Your task to perform on an android device: Go to wifi settings Image 0: 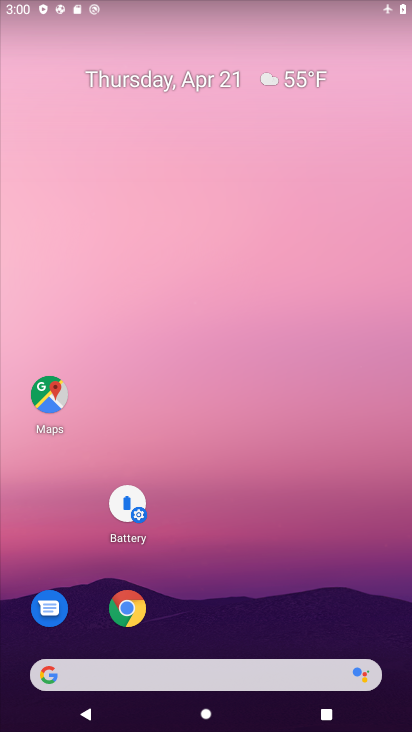
Step 0: drag from (355, 553) to (251, 118)
Your task to perform on an android device: Go to wifi settings Image 1: 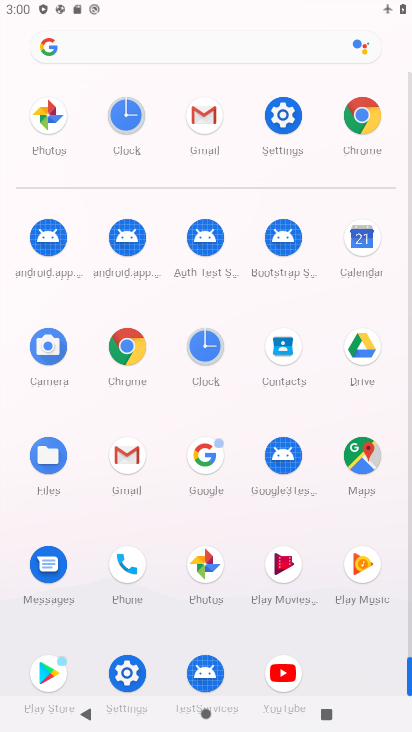
Step 1: click (279, 115)
Your task to perform on an android device: Go to wifi settings Image 2: 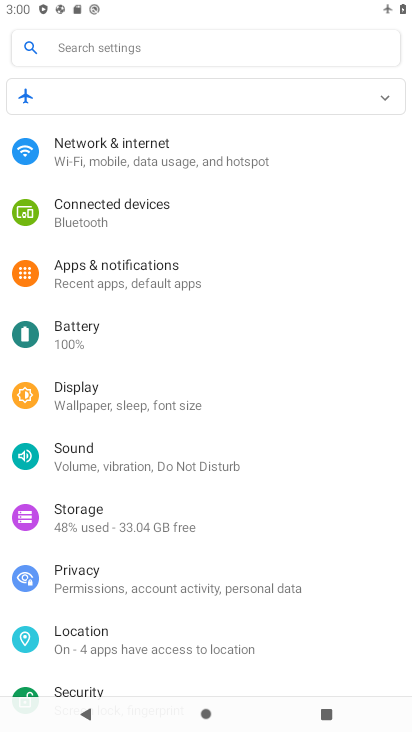
Step 2: click (150, 150)
Your task to perform on an android device: Go to wifi settings Image 3: 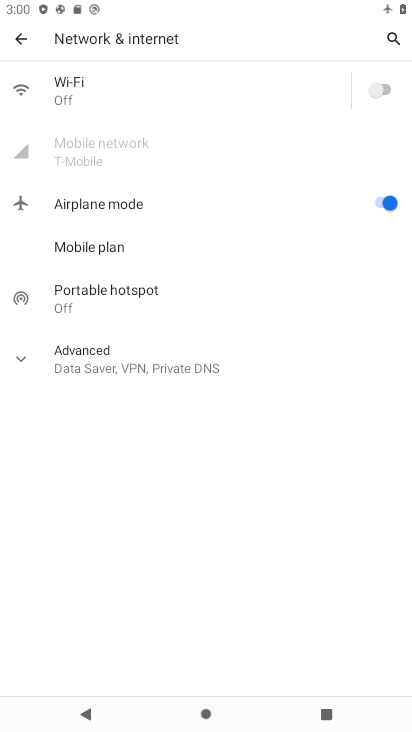
Step 3: click (104, 88)
Your task to perform on an android device: Go to wifi settings Image 4: 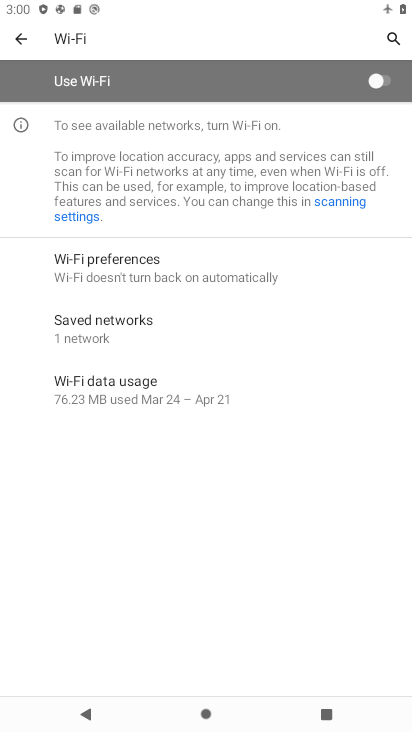
Step 4: task complete